Your task to perform on an android device: Open the phone app and click the voicemail tab. Image 0: 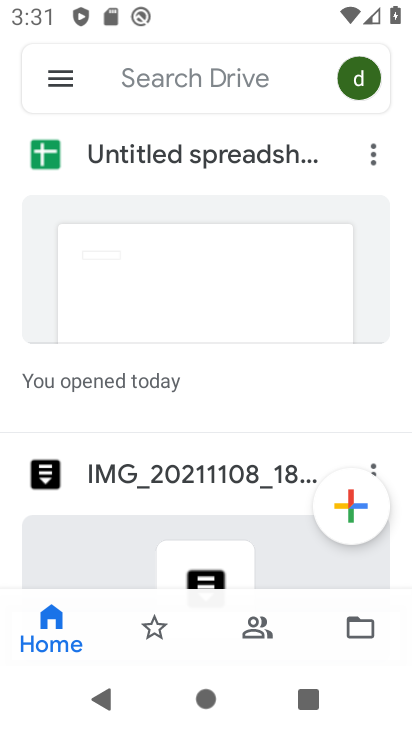
Step 0: press home button
Your task to perform on an android device: Open the phone app and click the voicemail tab. Image 1: 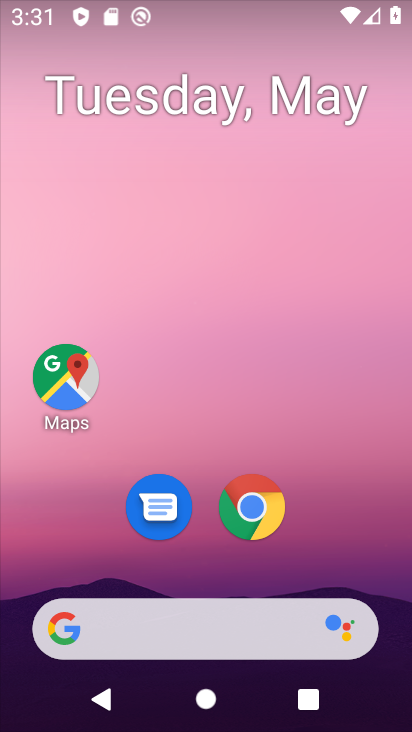
Step 1: drag from (392, 516) to (393, 157)
Your task to perform on an android device: Open the phone app and click the voicemail tab. Image 2: 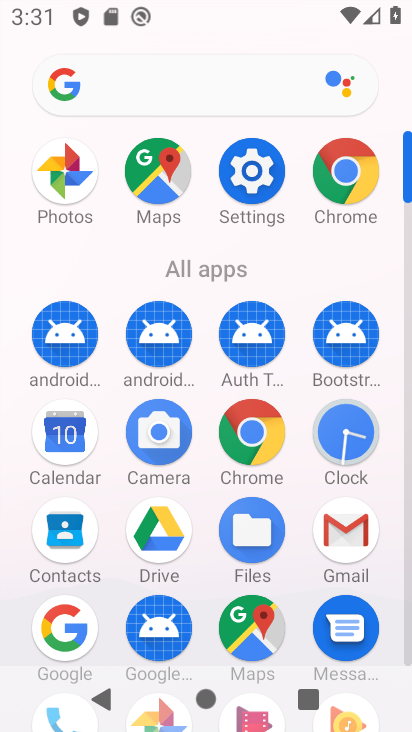
Step 2: drag from (395, 623) to (402, 144)
Your task to perform on an android device: Open the phone app and click the voicemail tab. Image 3: 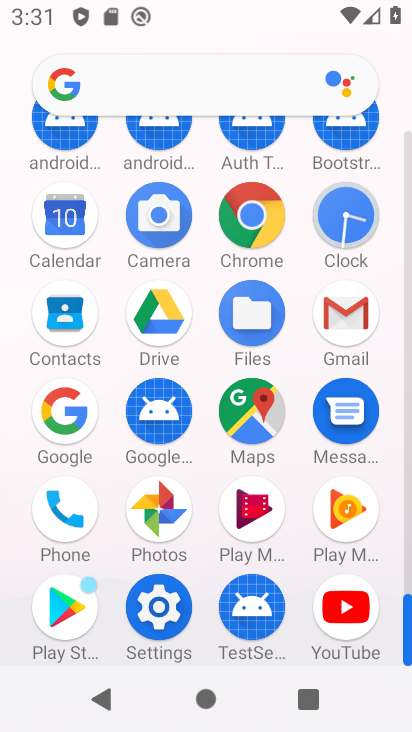
Step 3: click (62, 502)
Your task to perform on an android device: Open the phone app and click the voicemail tab. Image 4: 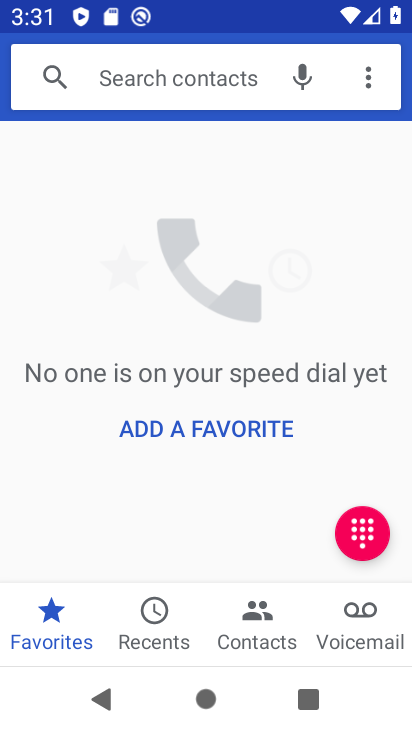
Step 4: click (371, 648)
Your task to perform on an android device: Open the phone app and click the voicemail tab. Image 5: 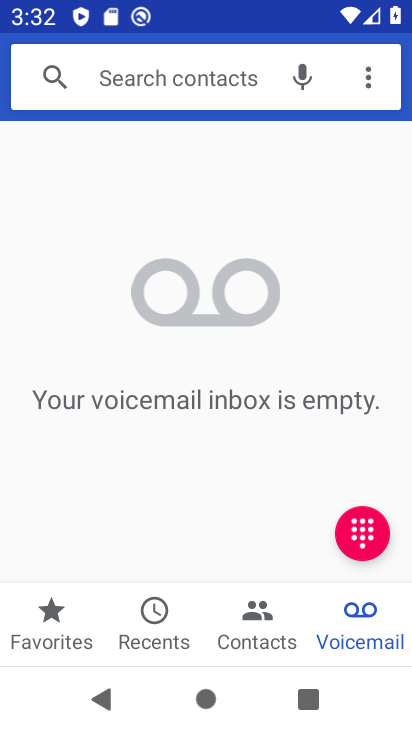
Step 5: task complete